Your task to perform on an android device: Open internet settings Image 0: 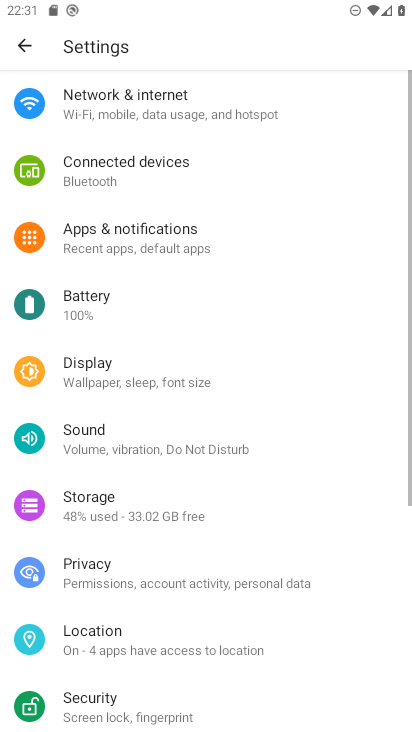
Step 0: click (234, 116)
Your task to perform on an android device: Open internet settings Image 1: 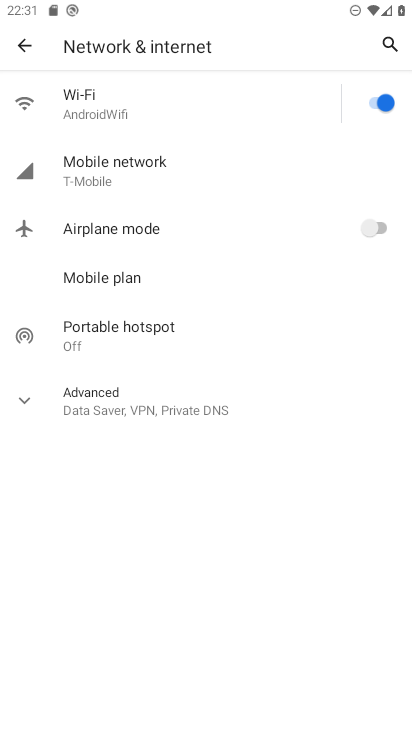
Step 1: task complete